Your task to perform on an android device: Open battery settings Image 0: 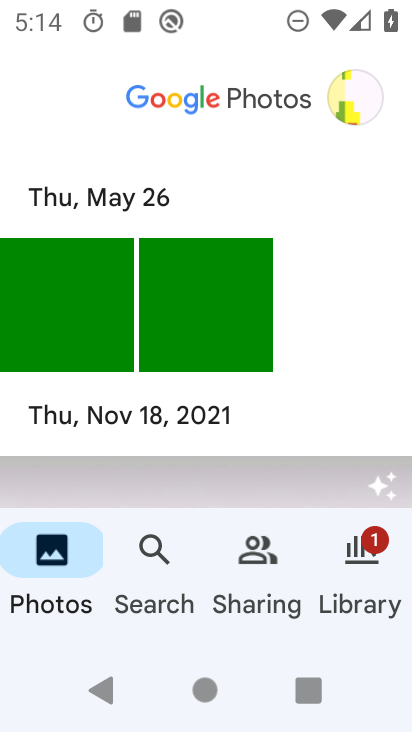
Step 0: press home button
Your task to perform on an android device: Open battery settings Image 1: 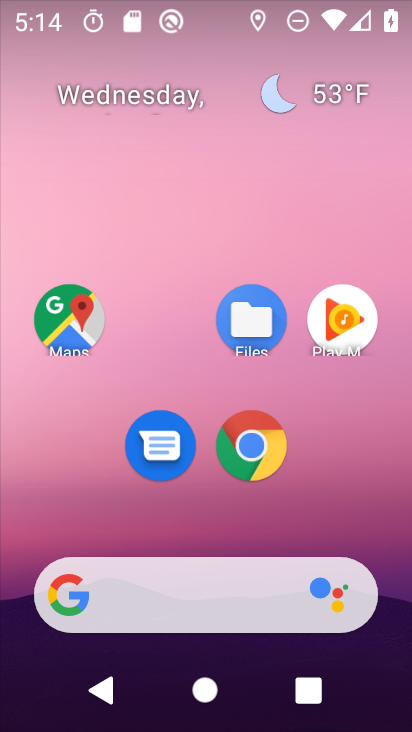
Step 1: drag from (309, 497) to (344, 64)
Your task to perform on an android device: Open battery settings Image 2: 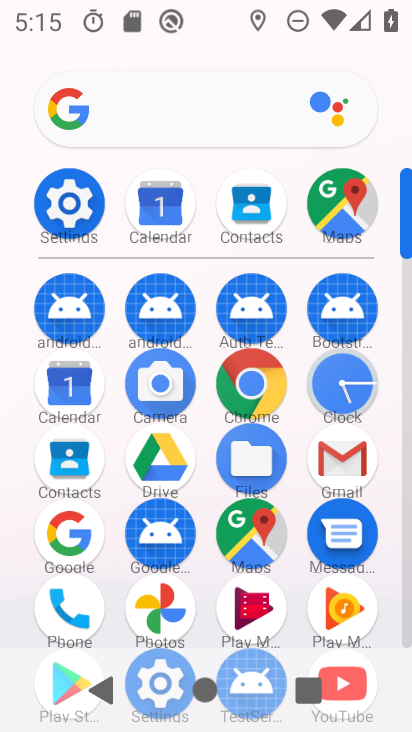
Step 2: click (58, 197)
Your task to perform on an android device: Open battery settings Image 3: 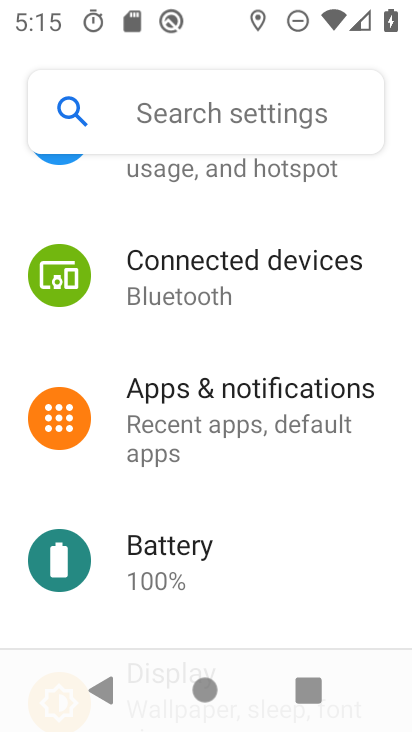
Step 3: click (221, 545)
Your task to perform on an android device: Open battery settings Image 4: 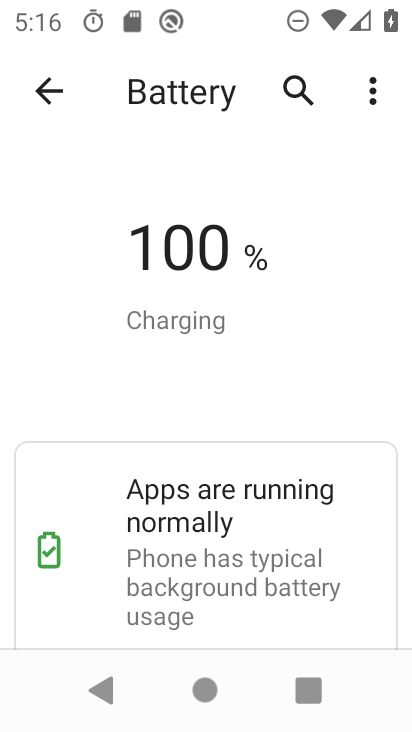
Step 4: task complete